Your task to perform on an android device: remove spam from my inbox in the gmail app Image 0: 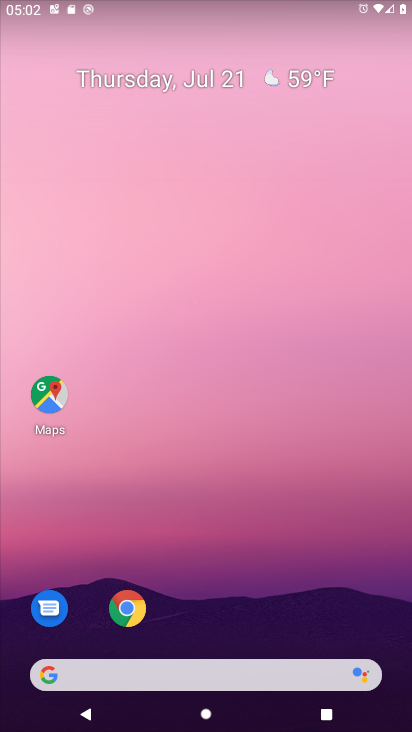
Step 0: drag from (248, 683) to (17, 708)
Your task to perform on an android device: remove spam from my inbox in the gmail app Image 1: 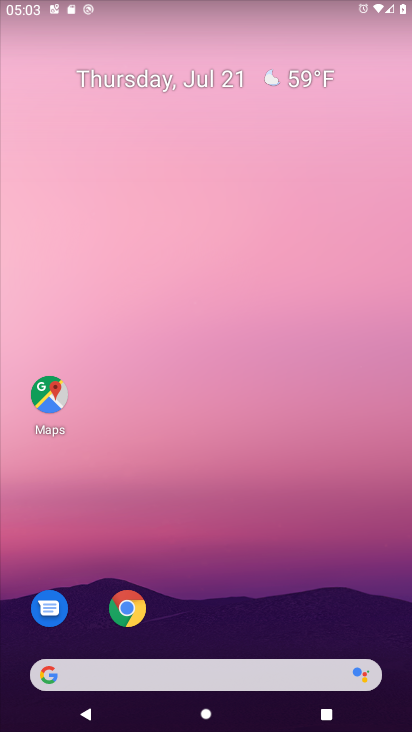
Step 1: drag from (258, 685) to (349, 53)
Your task to perform on an android device: remove spam from my inbox in the gmail app Image 2: 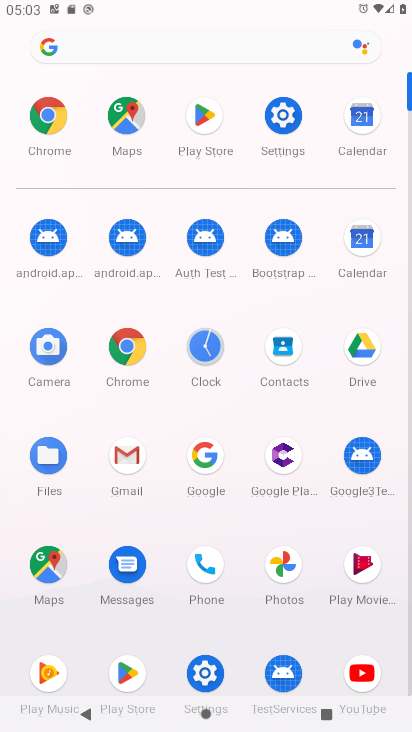
Step 2: click (134, 461)
Your task to perform on an android device: remove spam from my inbox in the gmail app Image 3: 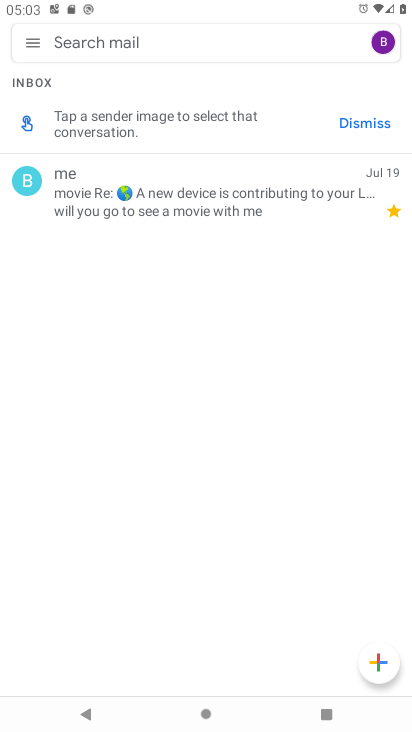
Step 3: click (34, 42)
Your task to perform on an android device: remove spam from my inbox in the gmail app Image 4: 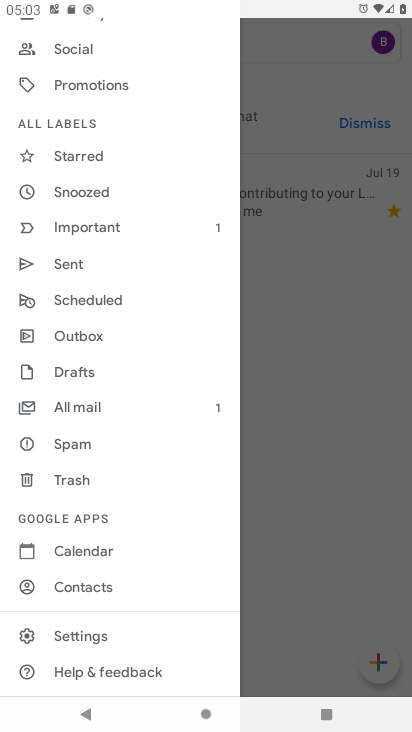
Step 4: click (99, 441)
Your task to perform on an android device: remove spam from my inbox in the gmail app Image 5: 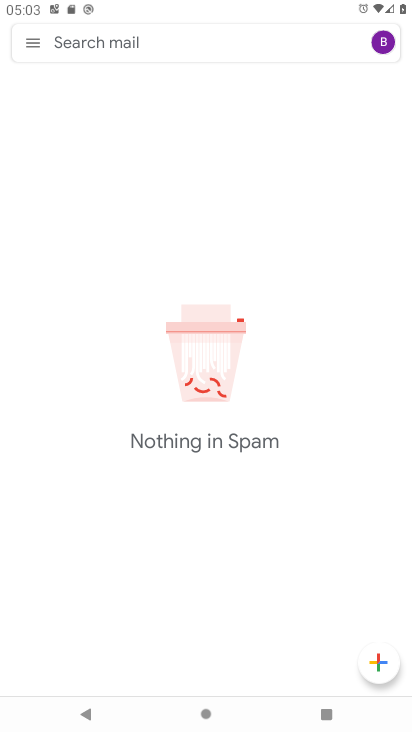
Step 5: task complete